Your task to perform on an android device: toggle airplane mode Image 0: 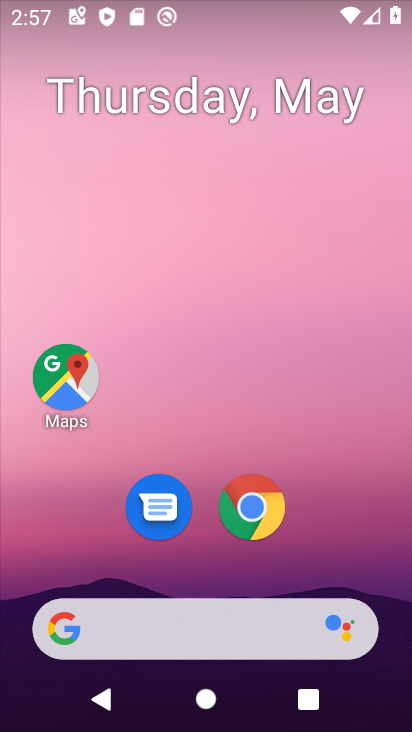
Step 0: drag from (352, 544) to (295, 79)
Your task to perform on an android device: toggle airplane mode Image 1: 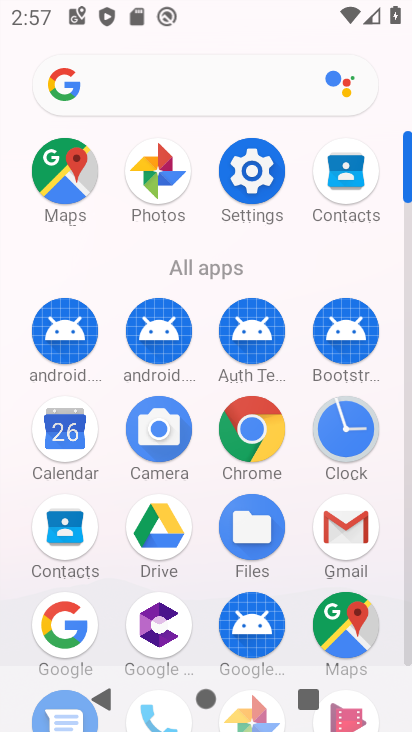
Step 1: click (271, 155)
Your task to perform on an android device: toggle airplane mode Image 2: 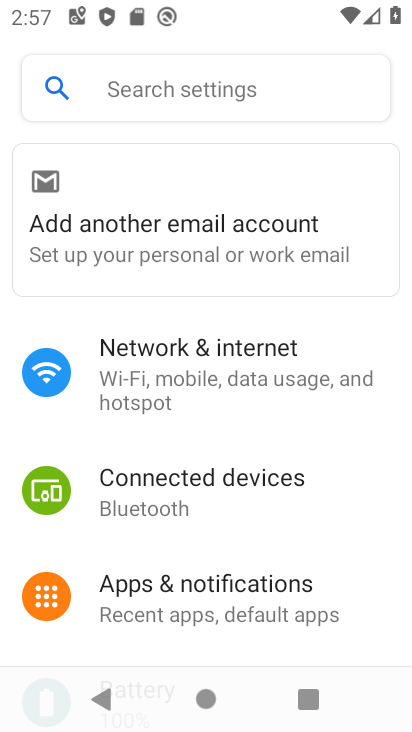
Step 2: click (265, 381)
Your task to perform on an android device: toggle airplane mode Image 3: 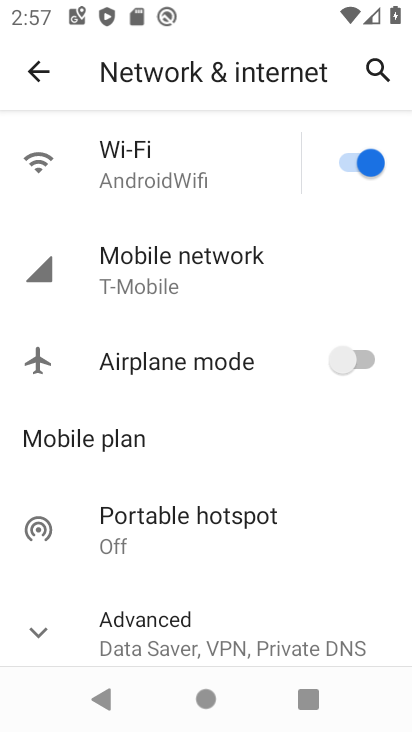
Step 3: click (333, 368)
Your task to perform on an android device: toggle airplane mode Image 4: 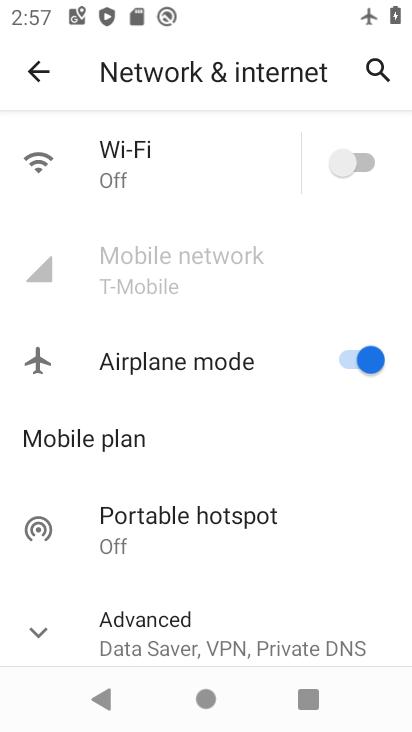
Step 4: task complete